Your task to perform on an android device: turn on javascript in the chrome app Image 0: 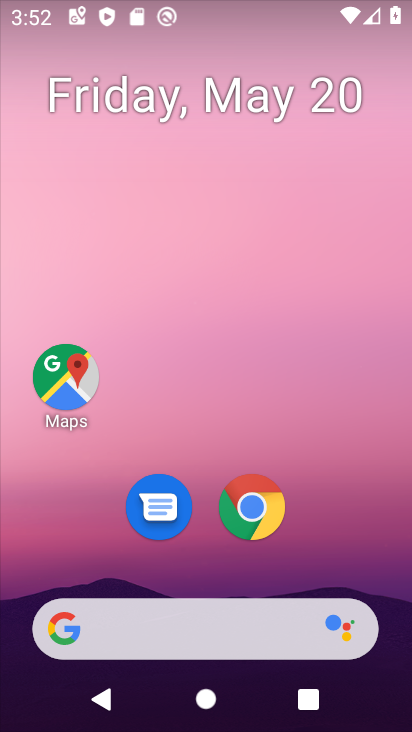
Step 0: click (252, 505)
Your task to perform on an android device: turn on javascript in the chrome app Image 1: 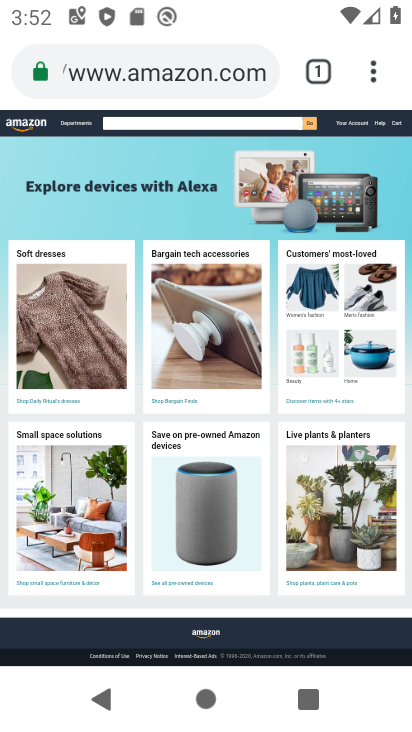
Step 1: click (375, 64)
Your task to perform on an android device: turn on javascript in the chrome app Image 2: 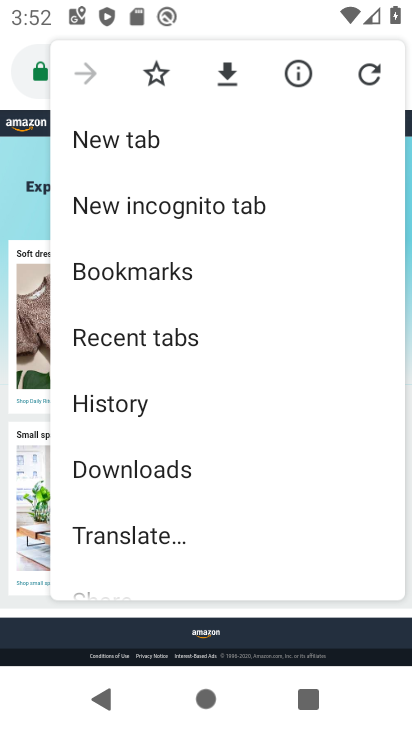
Step 2: drag from (178, 423) to (196, 304)
Your task to perform on an android device: turn on javascript in the chrome app Image 3: 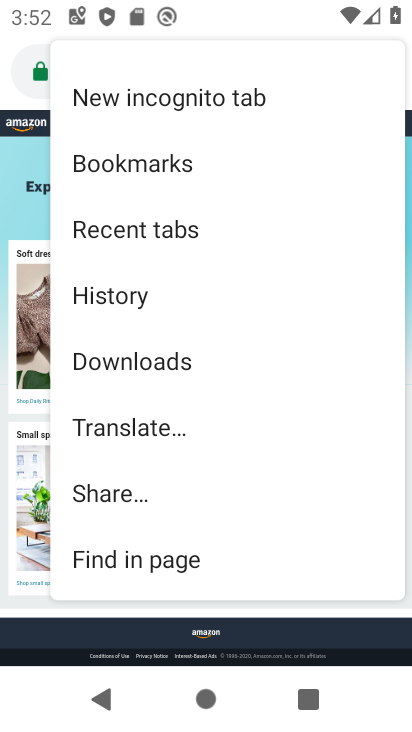
Step 3: drag from (152, 459) to (171, 379)
Your task to perform on an android device: turn on javascript in the chrome app Image 4: 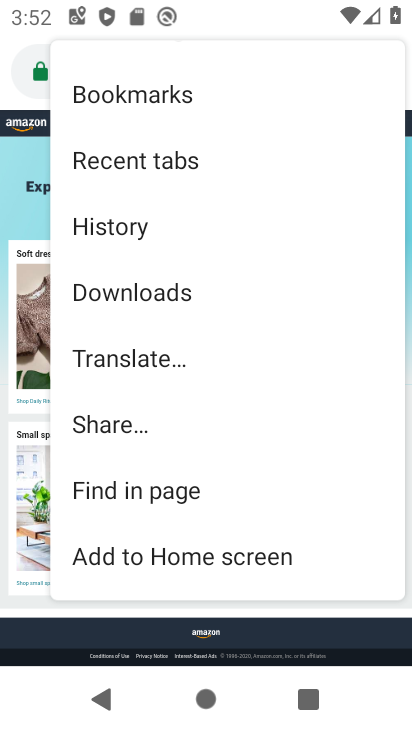
Step 4: drag from (151, 454) to (164, 383)
Your task to perform on an android device: turn on javascript in the chrome app Image 5: 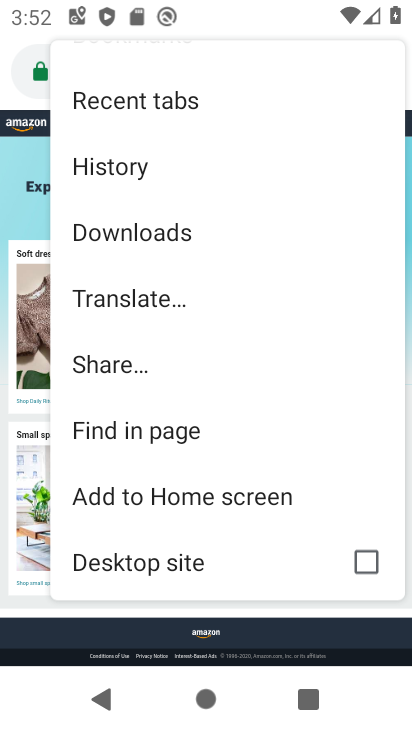
Step 5: drag from (138, 513) to (168, 427)
Your task to perform on an android device: turn on javascript in the chrome app Image 6: 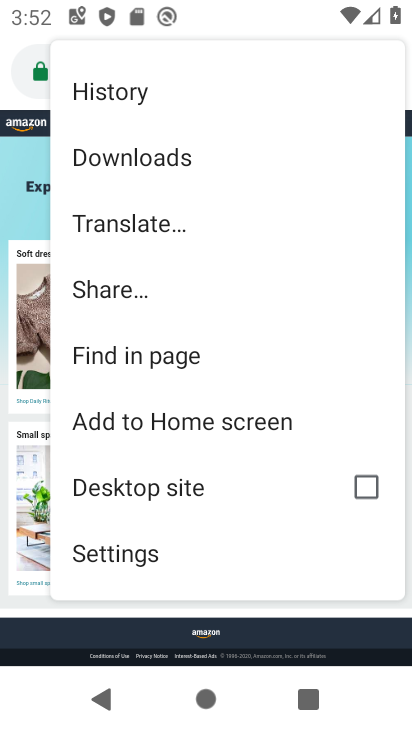
Step 6: drag from (123, 510) to (148, 419)
Your task to perform on an android device: turn on javascript in the chrome app Image 7: 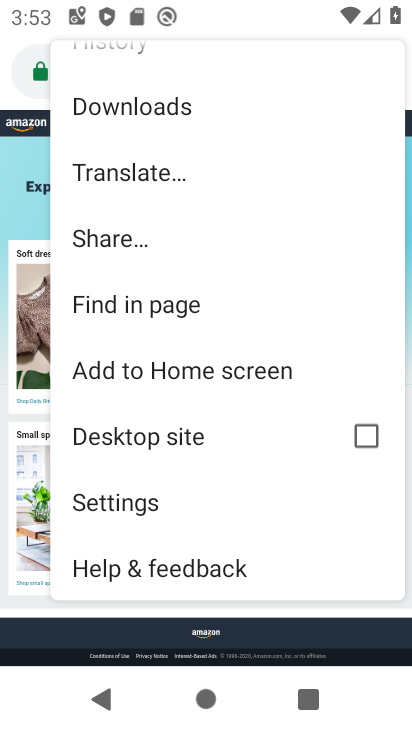
Step 7: click (132, 501)
Your task to perform on an android device: turn on javascript in the chrome app Image 8: 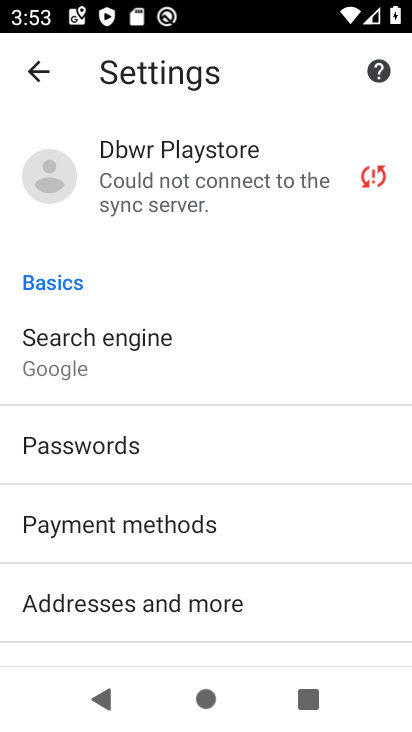
Step 8: drag from (135, 451) to (161, 371)
Your task to perform on an android device: turn on javascript in the chrome app Image 9: 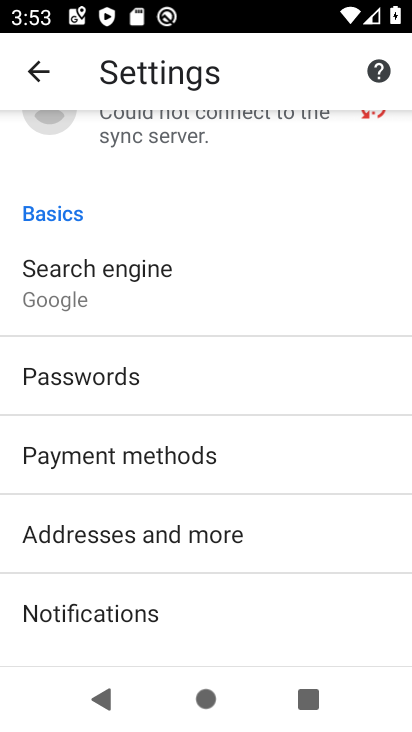
Step 9: drag from (102, 476) to (123, 402)
Your task to perform on an android device: turn on javascript in the chrome app Image 10: 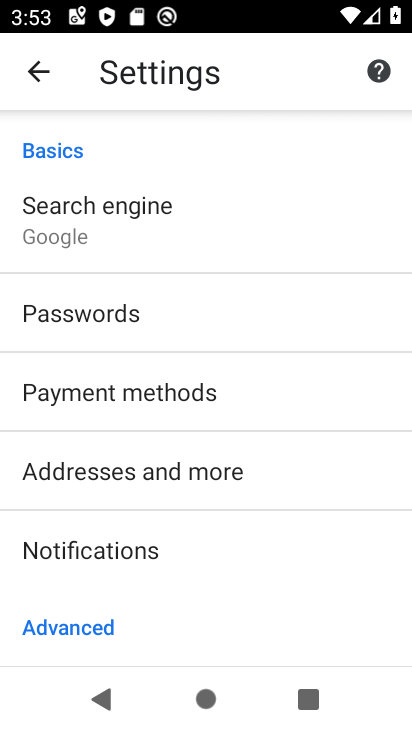
Step 10: drag from (93, 492) to (94, 410)
Your task to perform on an android device: turn on javascript in the chrome app Image 11: 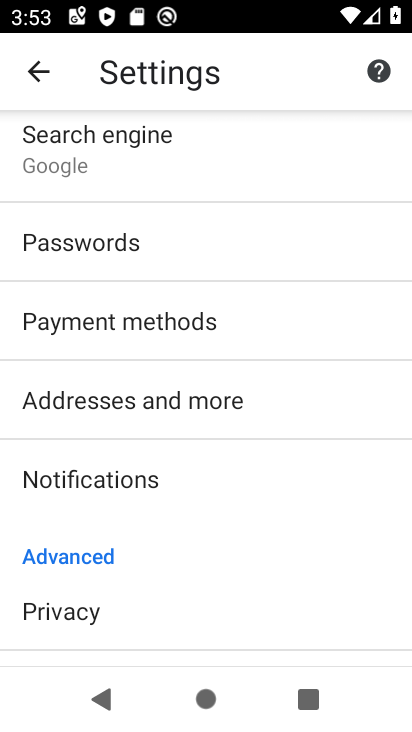
Step 11: drag from (87, 448) to (90, 383)
Your task to perform on an android device: turn on javascript in the chrome app Image 12: 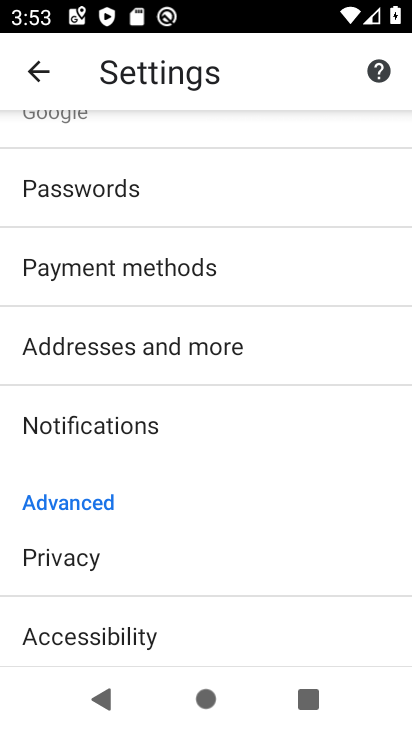
Step 12: drag from (77, 473) to (84, 394)
Your task to perform on an android device: turn on javascript in the chrome app Image 13: 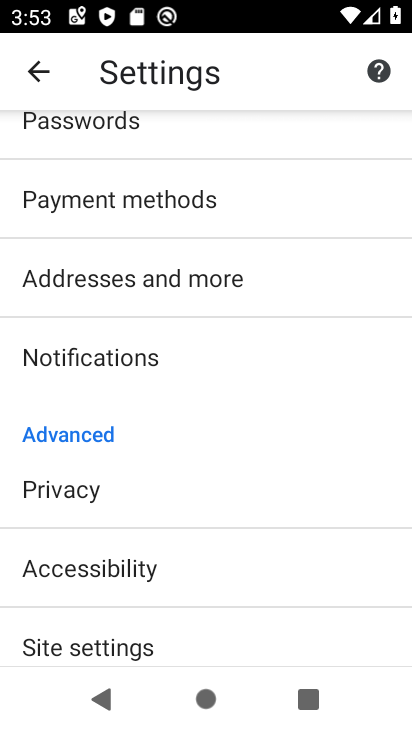
Step 13: drag from (73, 457) to (86, 357)
Your task to perform on an android device: turn on javascript in the chrome app Image 14: 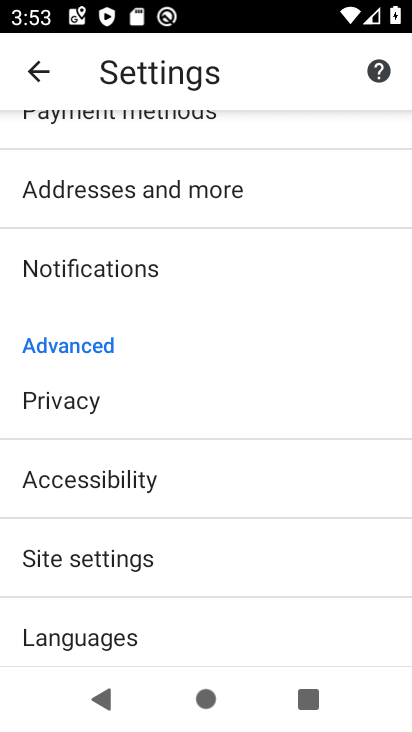
Step 14: click (75, 559)
Your task to perform on an android device: turn on javascript in the chrome app Image 15: 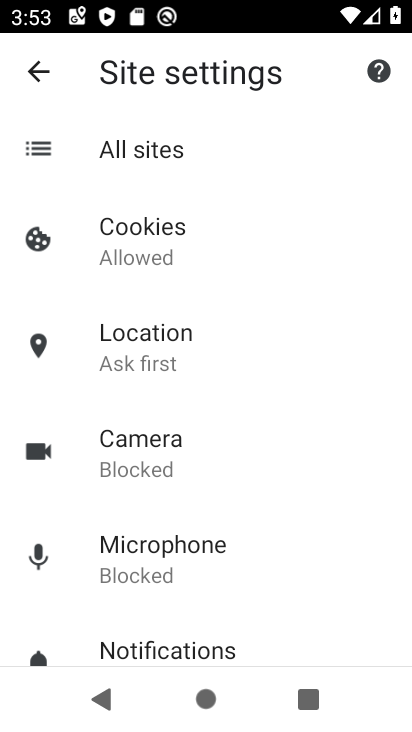
Step 15: drag from (183, 515) to (183, 394)
Your task to perform on an android device: turn on javascript in the chrome app Image 16: 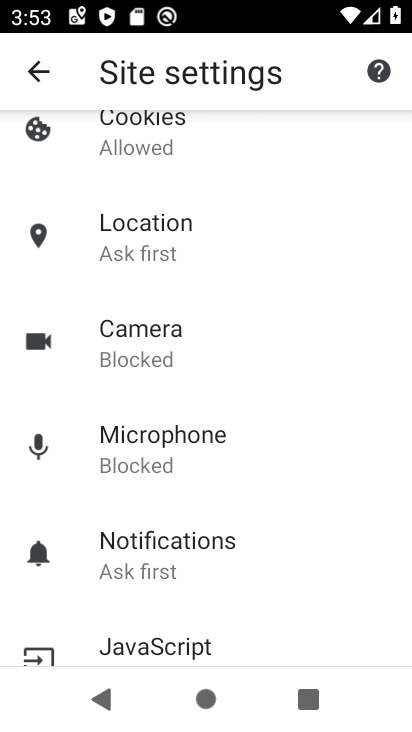
Step 16: drag from (121, 509) to (169, 407)
Your task to perform on an android device: turn on javascript in the chrome app Image 17: 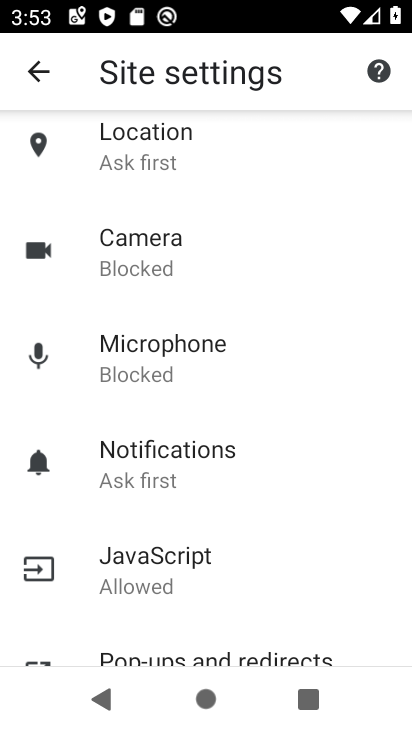
Step 17: click (125, 565)
Your task to perform on an android device: turn on javascript in the chrome app Image 18: 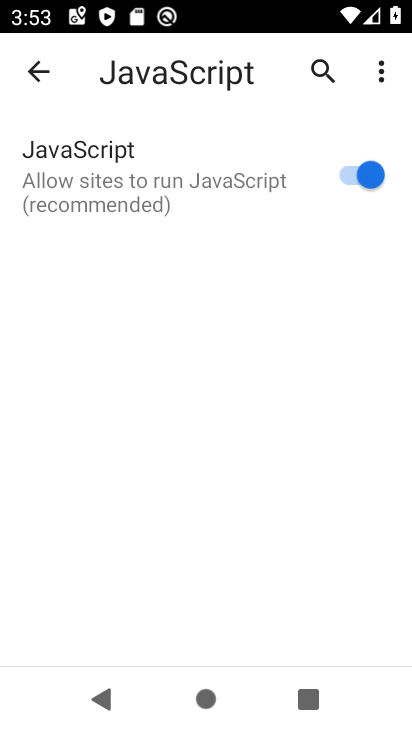
Step 18: task complete